Your task to perform on an android device: Open maps Image 0: 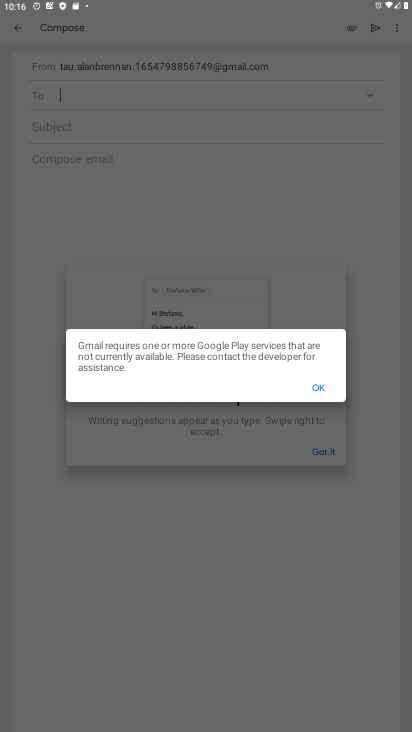
Step 0: press home button
Your task to perform on an android device: Open maps Image 1: 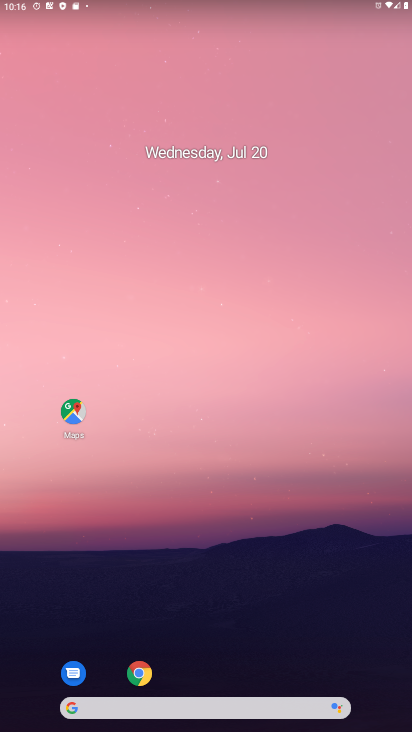
Step 1: drag from (219, 731) to (241, 135)
Your task to perform on an android device: Open maps Image 2: 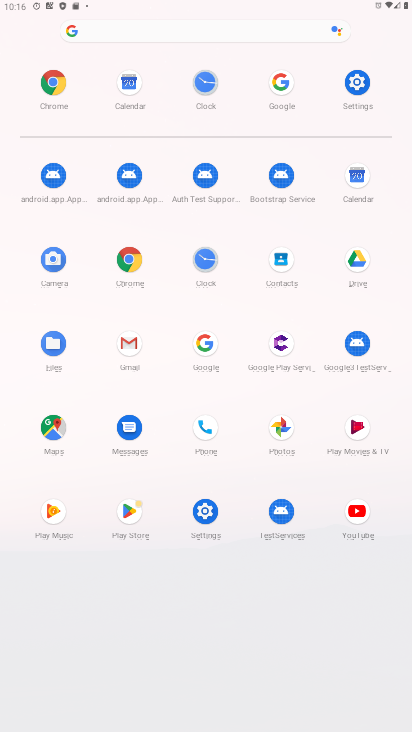
Step 2: click (56, 429)
Your task to perform on an android device: Open maps Image 3: 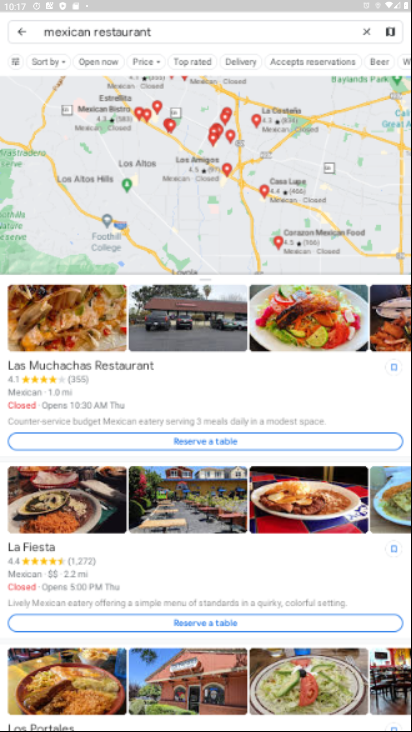
Step 3: task complete